Your task to perform on an android device: turn off data saver in the chrome app Image 0: 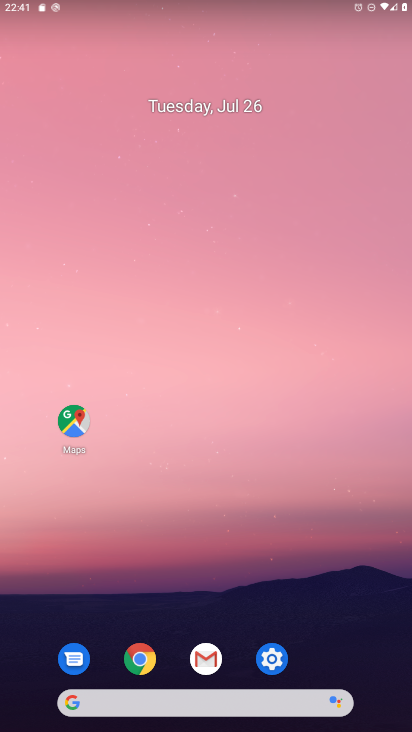
Step 0: click (146, 640)
Your task to perform on an android device: turn off data saver in the chrome app Image 1: 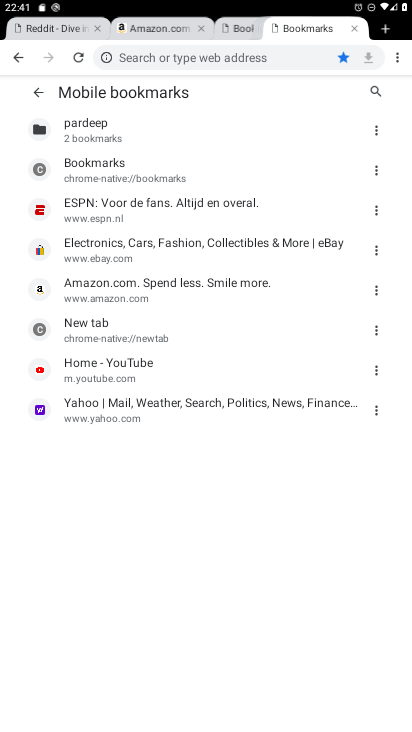
Step 1: click (383, 32)
Your task to perform on an android device: turn off data saver in the chrome app Image 2: 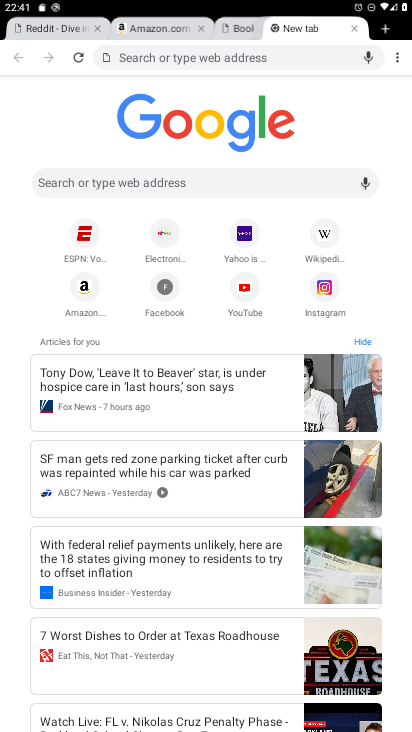
Step 2: click (394, 56)
Your task to perform on an android device: turn off data saver in the chrome app Image 3: 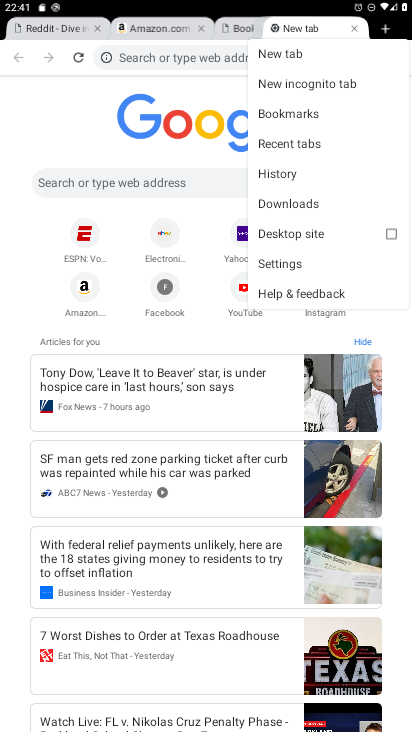
Step 3: click (282, 261)
Your task to perform on an android device: turn off data saver in the chrome app Image 4: 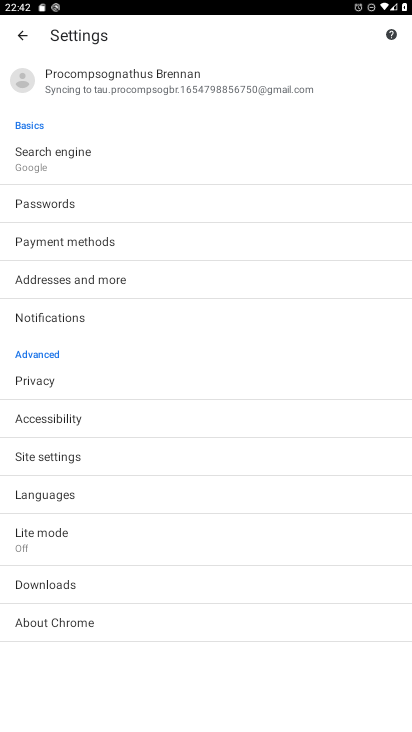
Step 4: click (60, 526)
Your task to perform on an android device: turn off data saver in the chrome app Image 5: 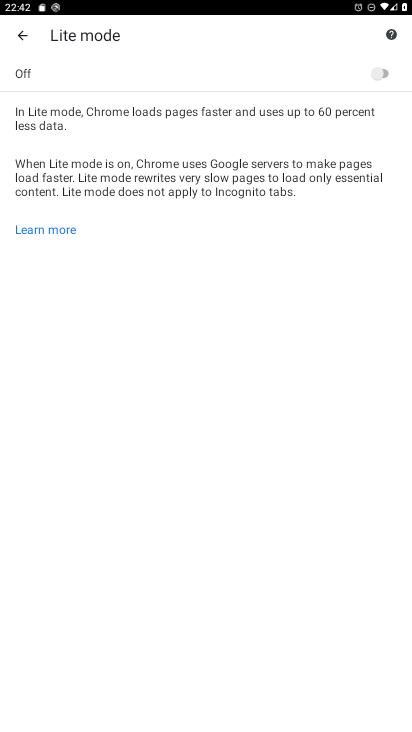
Step 5: click (333, 94)
Your task to perform on an android device: turn off data saver in the chrome app Image 6: 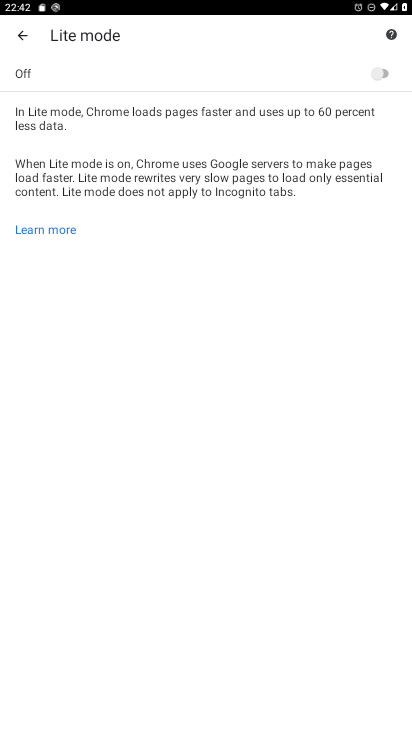
Step 6: task complete